Your task to perform on an android device: What is the news today? Image 0: 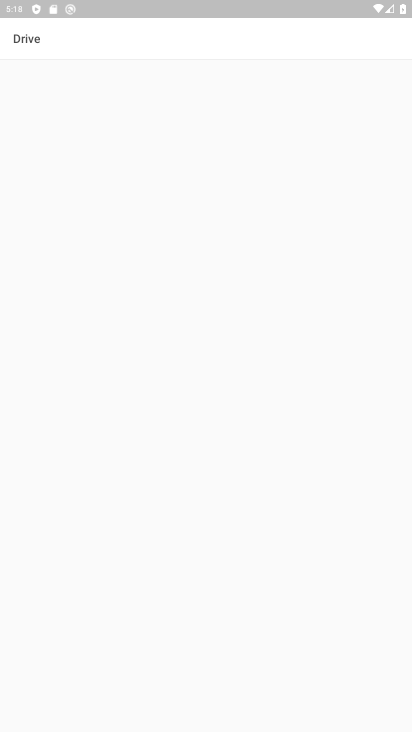
Step 0: drag from (312, 696) to (349, 12)
Your task to perform on an android device: What is the news today? Image 1: 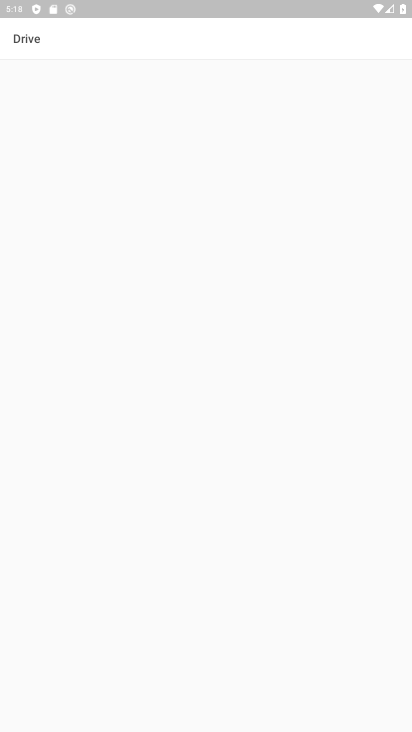
Step 1: press home button
Your task to perform on an android device: What is the news today? Image 2: 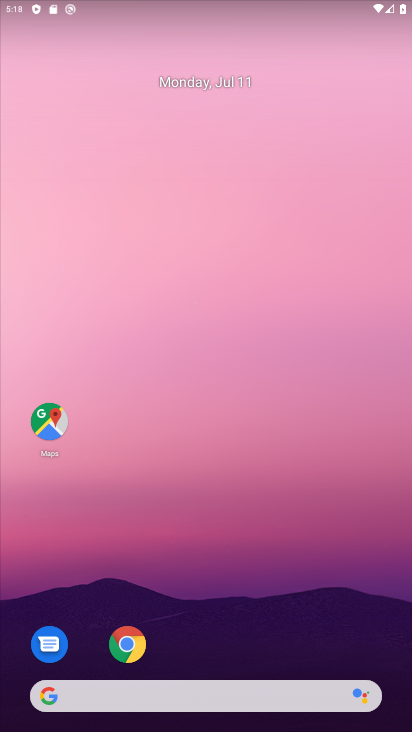
Step 2: drag from (213, 668) to (261, 8)
Your task to perform on an android device: What is the news today? Image 3: 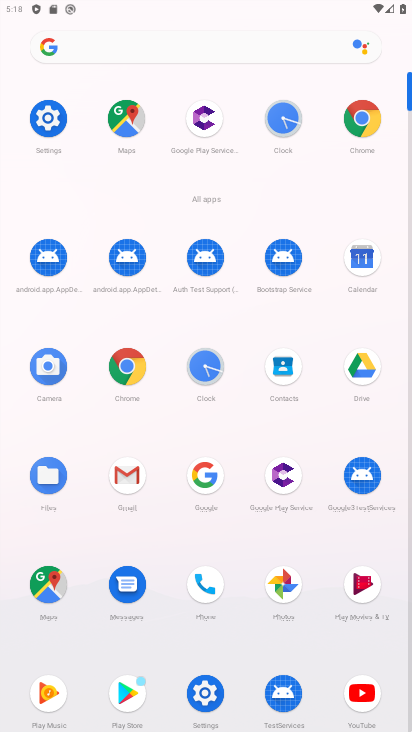
Step 3: click (121, 364)
Your task to perform on an android device: What is the news today? Image 4: 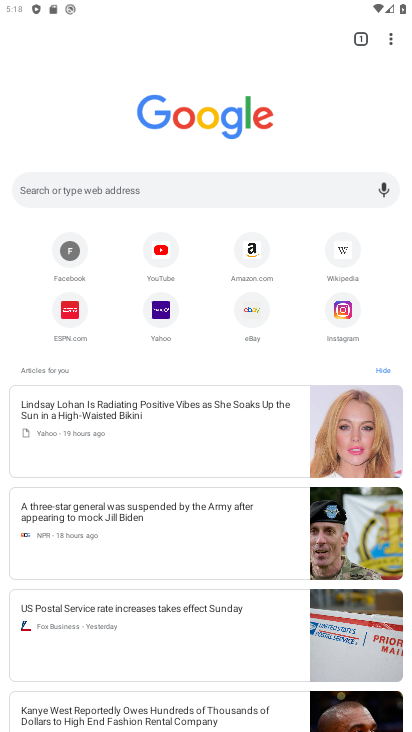
Step 4: click (131, 190)
Your task to perform on an android device: What is the news today? Image 5: 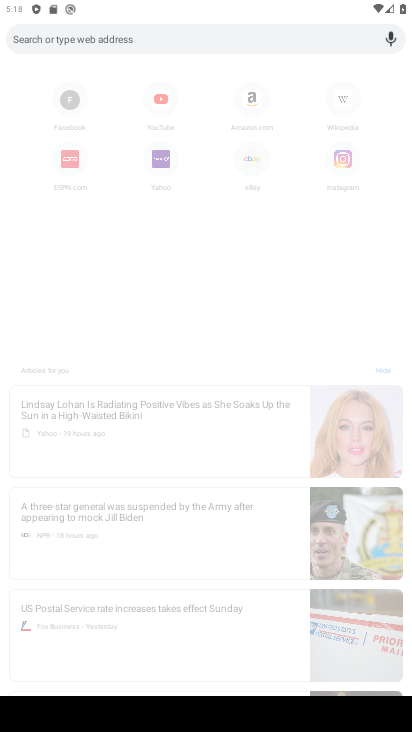
Step 5: type "news today"
Your task to perform on an android device: What is the news today? Image 6: 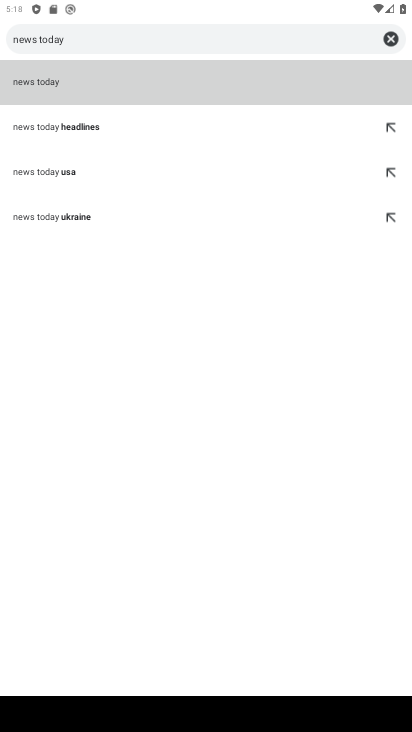
Step 6: click (248, 73)
Your task to perform on an android device: What is the news today? Image 7: 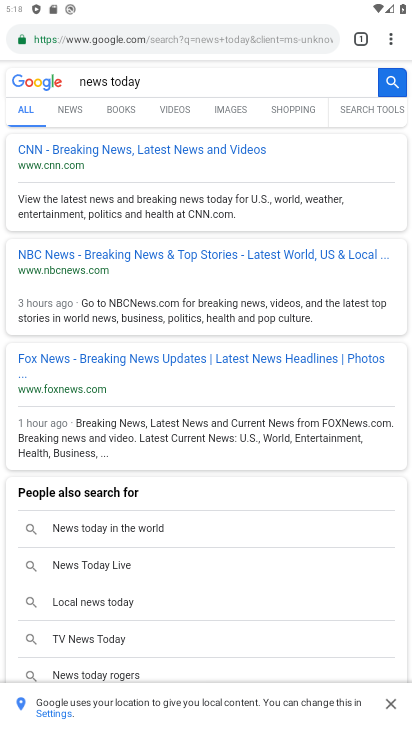
Step 7: task complete